Your task to perform on an android device: Open calendar and show me the first week of next month Image 0: 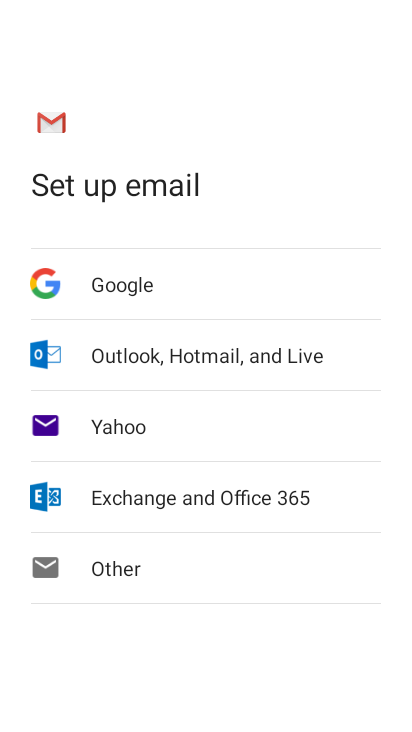
Step 0: press home button
Your task to perform on an android device: Open calendar and show me the first week of next month Image 1: 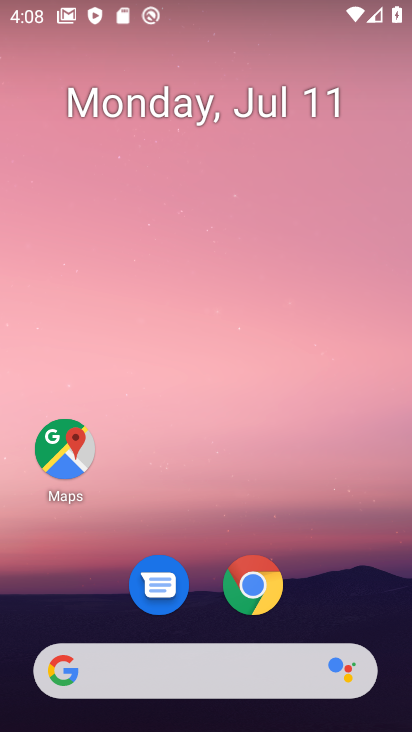
Step 1: drag from (249, 491) to (251, 40)
Your task to perform on an android device: Open calendar and show me the first week of next month Image 2: 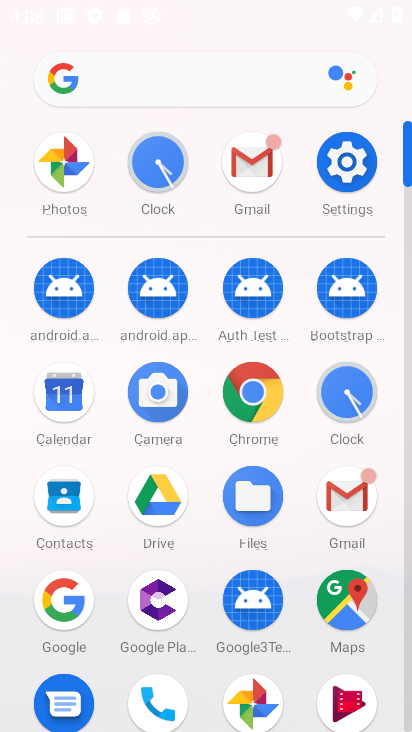
Step 2: click (63, 385)
Your task to perform on an android device: Open calendar and show me the first week of next month Image 3: 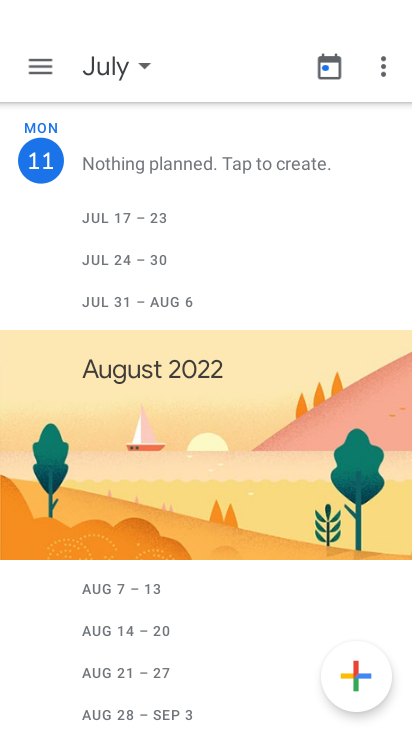
Step 3: click (44, 73)
Your task to perform on an android device: Open calendar and show me the first week of next month Image 4: 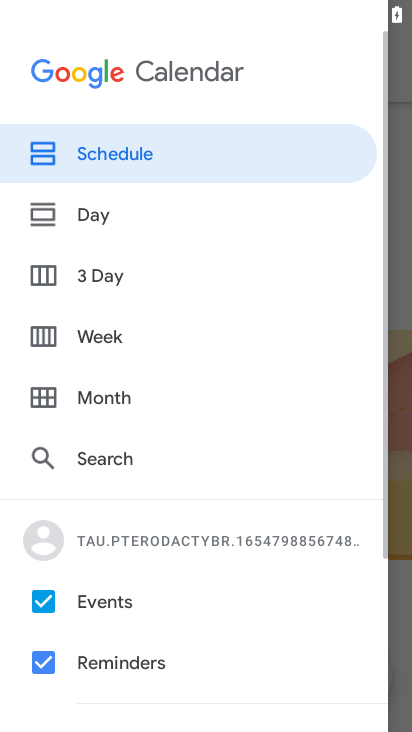
Step 4: click (86, 337)
Your task to perform on an android device: Open calendar and show me the first week of next month Image 5: 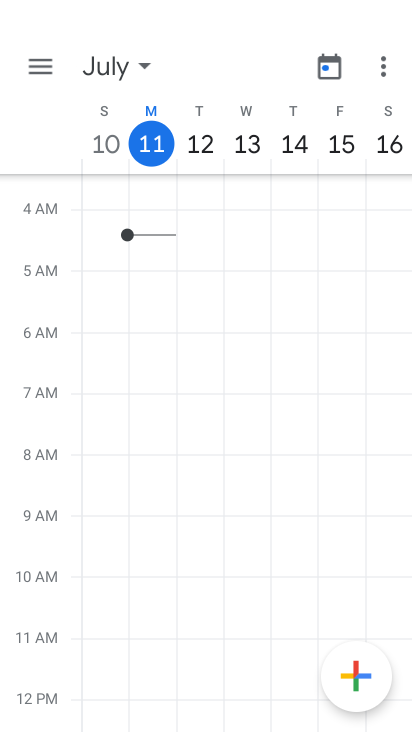
Step 5: task complete